Your task to perform on an android device: View the shopping cart on target.com. Search for logitech g910 on target.com, select the first entry, add it to the cart, then select checkout. Image 0: 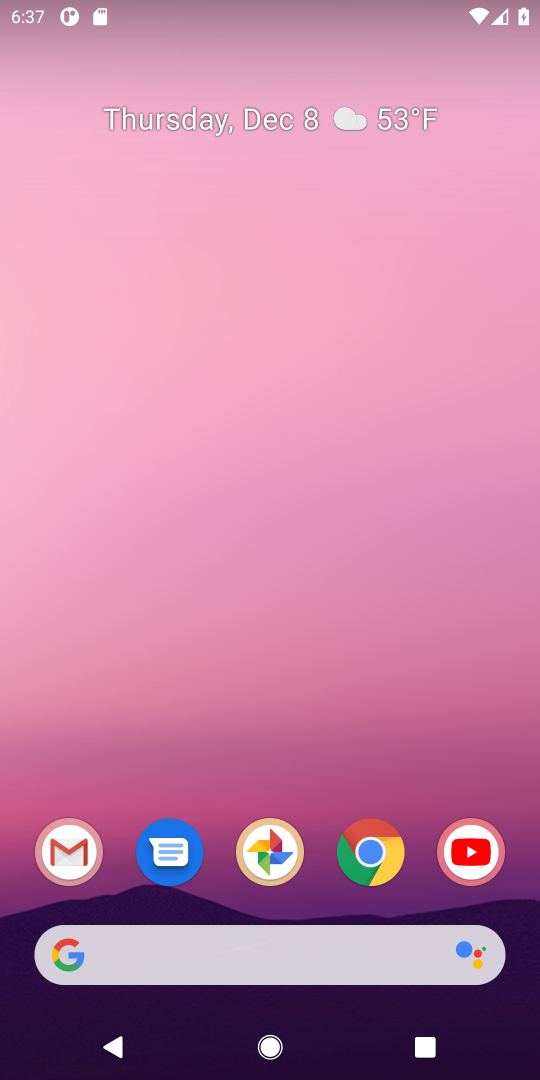
Step 0: click (207, 961)
Your task to perform on an android device: View the shopping cart on target.com. Search for logitech g910 on target.com, select the first entry, add it to the cart, then select checkout. Image 1: 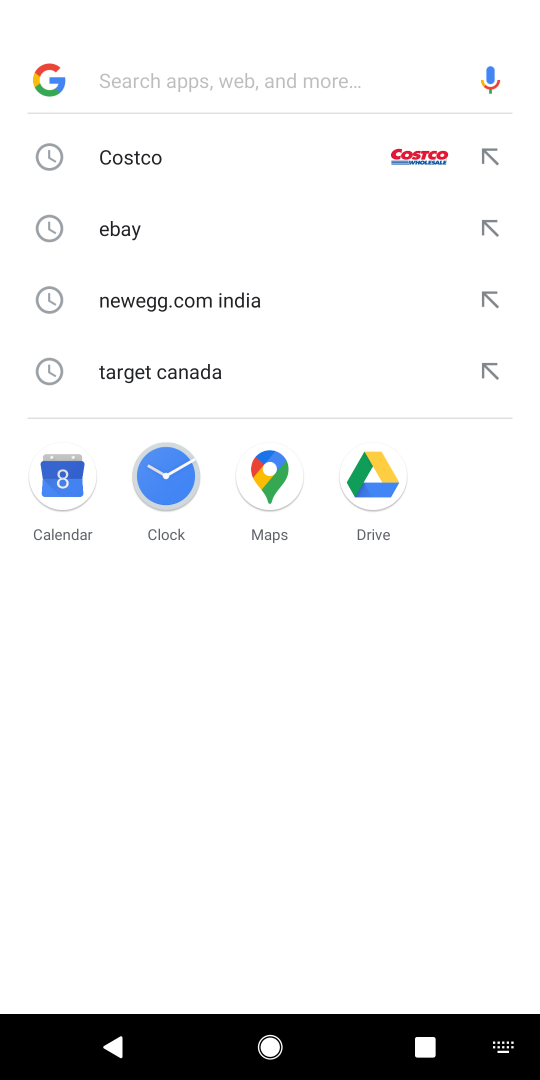
Step 1: type "target"
Your task to perform on an android device: View the shopping cart on target.com. Search for logitech g910 on target.com, select the first entry, add it to the cart, then select checkout. Image 2: 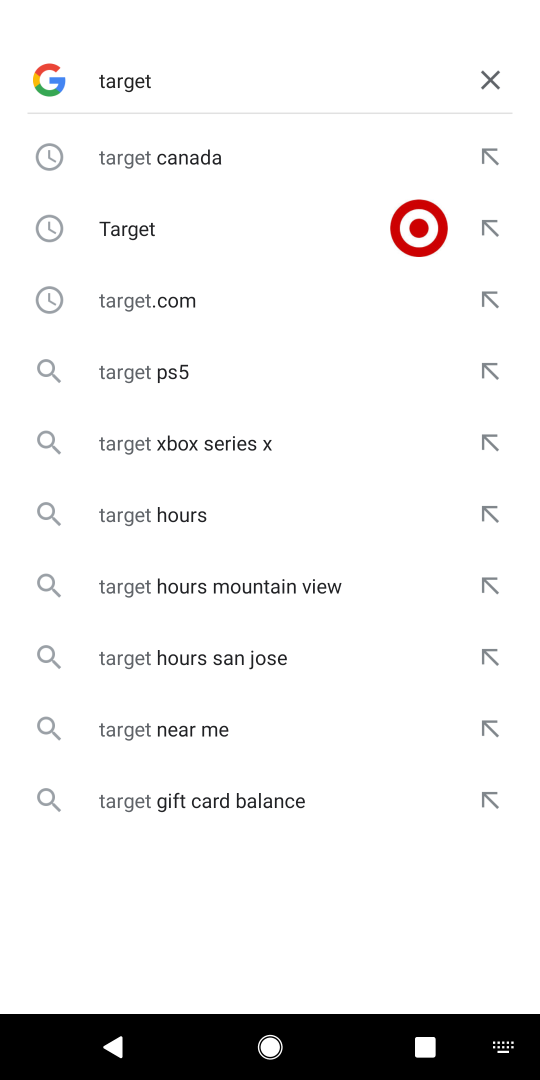
Step 2: click (121, 235)
Your task to perform on an android device: View the shopping cart on target.com. Search for logitech g910 on target.com, select the first entry, add it to the cart, then select checkout. Image 3: 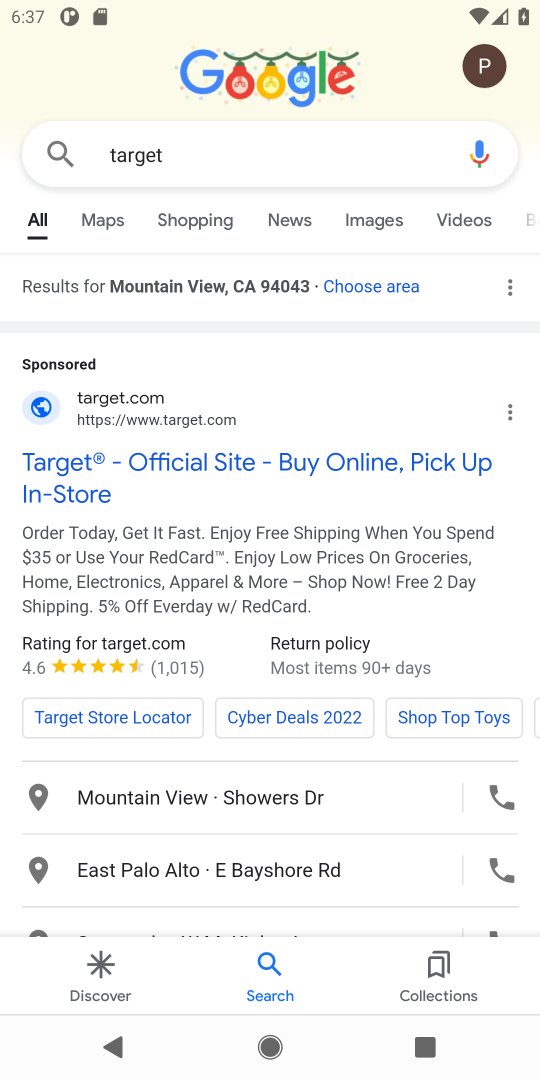
Step 3: click (206, 462)
Your task to perform on an android device: View the shopping cart on target.com. Search for logitech g910 on target.com, select the first entry, add it to the cart, then select checkout. Image 4: 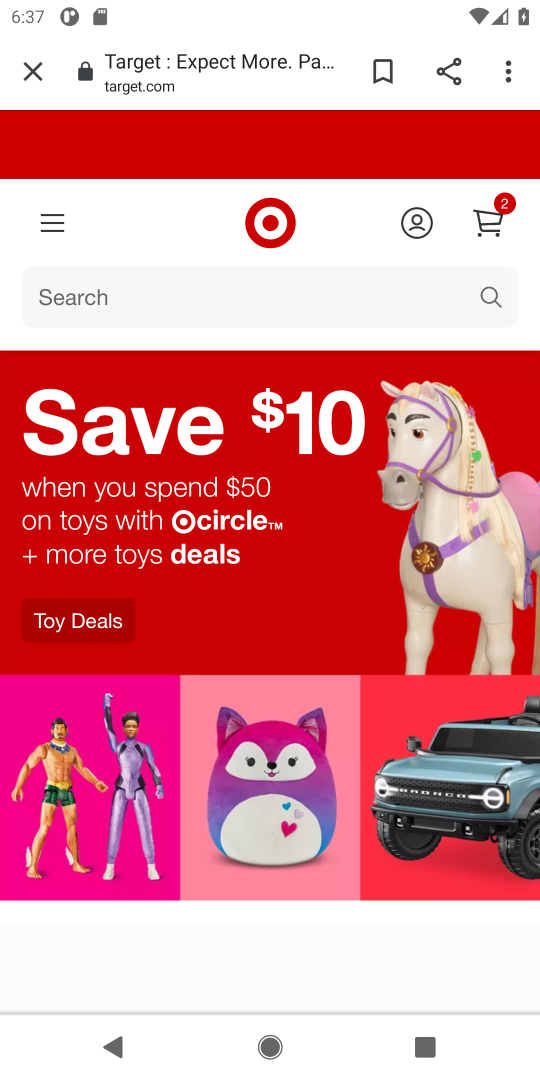
Step 4: click (247, 306)
Your task to perform on an android device: View the shopping cart on target.com. Search for logitech g910 on target.com, select the first entry, add it to the cart, then select checkout. Image 5: 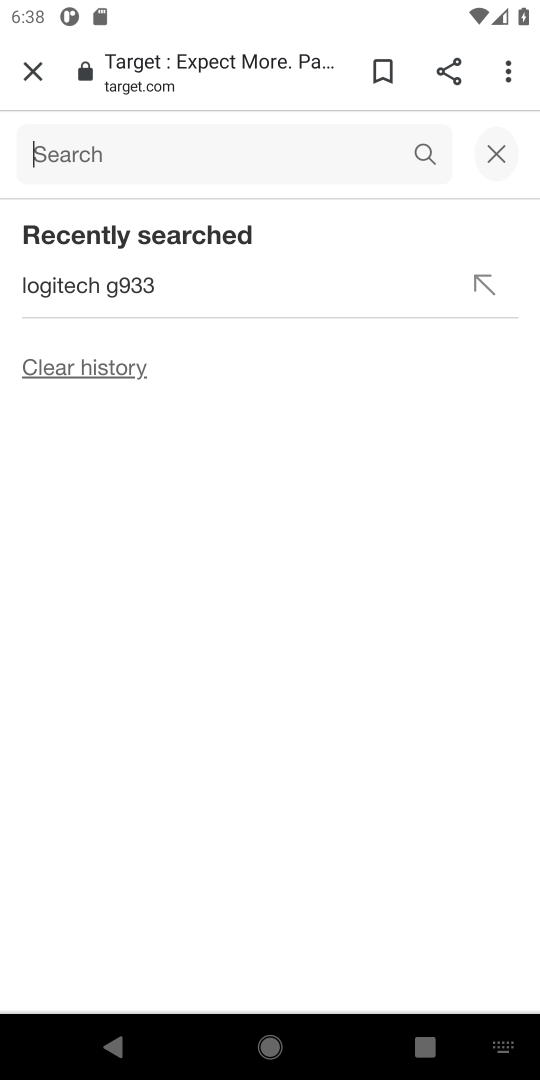
Step 5: type "logitech g910"
Your task to perform on an android device: View the shopping cart on target.com. Search for logitech g910 on target.com, select the first entry, add it to the cart, then select checkout. Image 6: 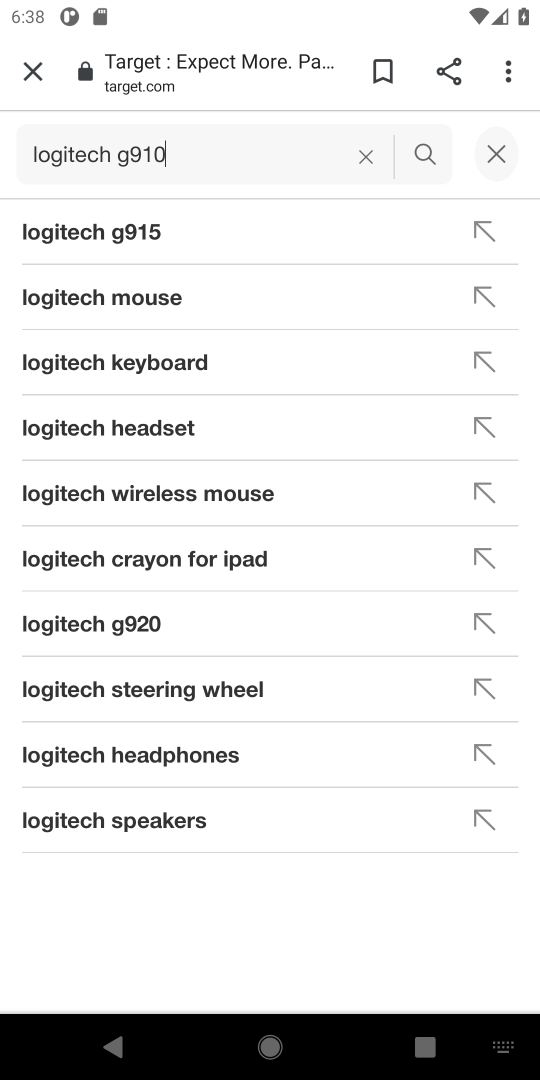
Step 6: click (427, 161)
Your task to perform on an android device: View the shopping cart on target.com. Search for logitech g910 on target.com, select the first entry, add it to the cart, then select checkout. Image 7: 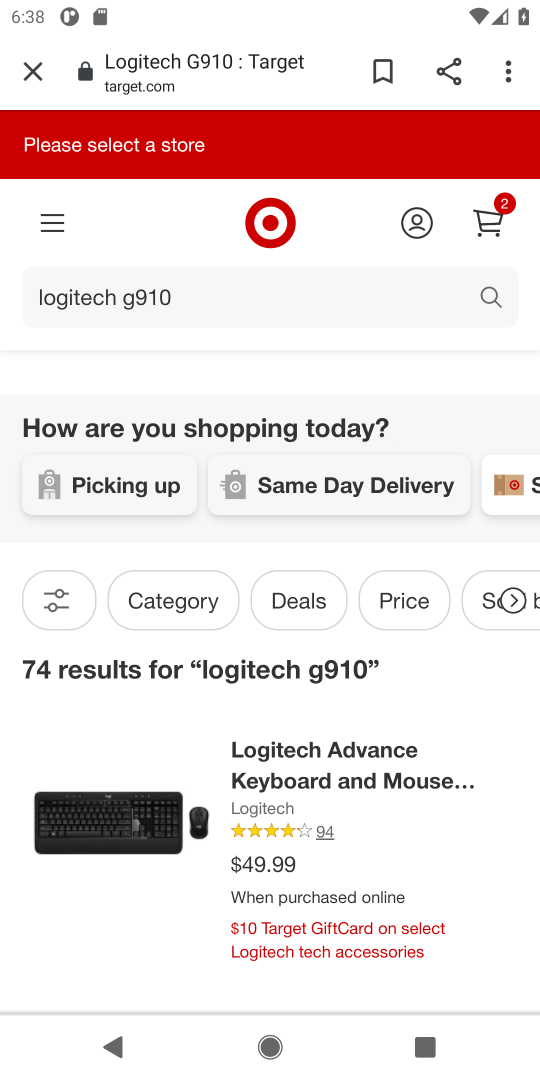
Step 7: click (372, 761)
Your task to perform on an android device: View the shopping cart on target.com. Search for logitech g910 on target.com, select the first entry, add it to the cart, then select checkout. Image 8: 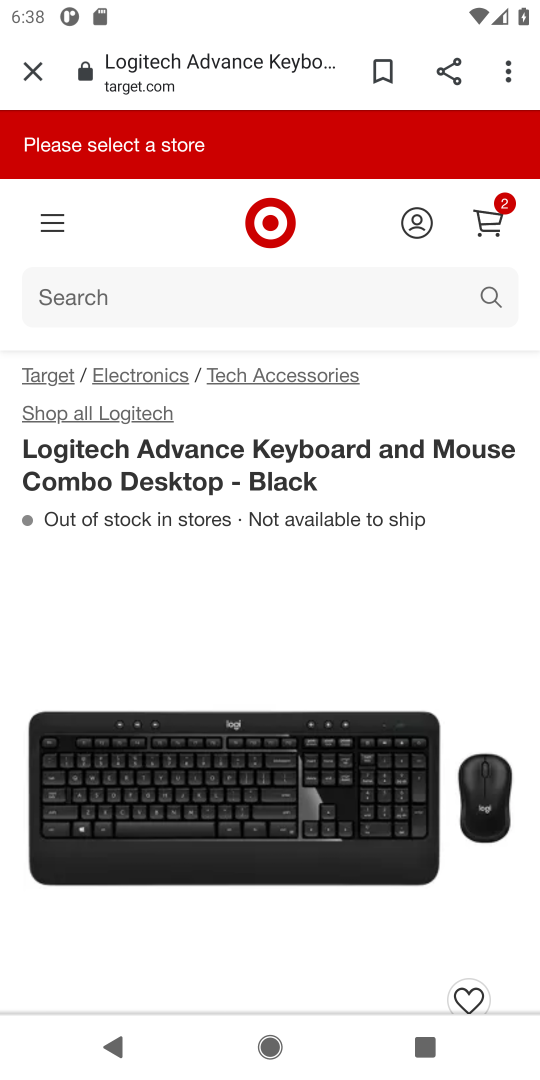
Step 8: drag from (372, 761) to (362, 261)
Your task to perform on an android device: View the shopping cart on target.com. Search for logitech g910 on target.com, select the first entry, add it to the cart, then select checkout. Image 9: 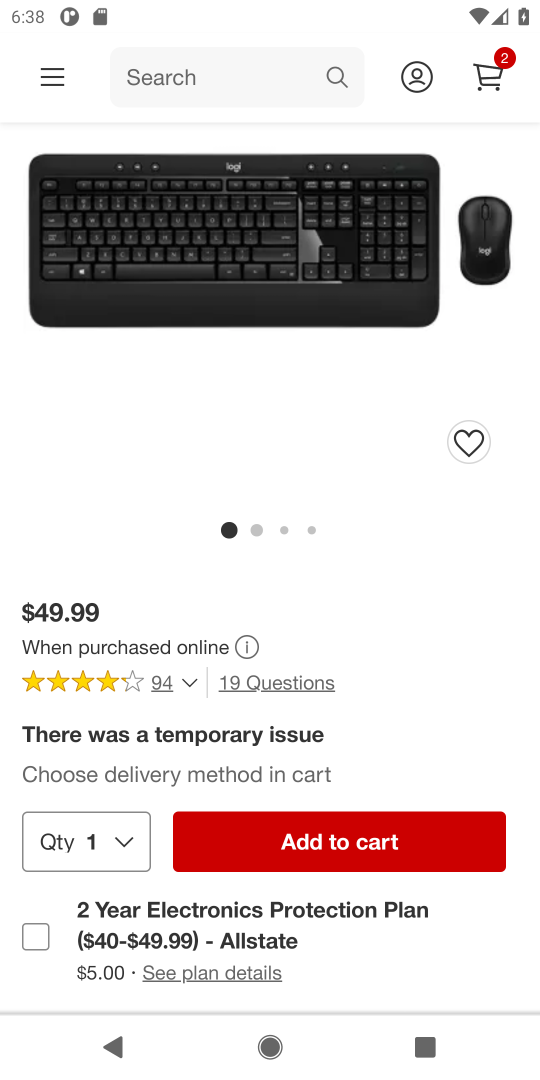
Step 9: click (426, 839)
Your task to perform on an android device: View the shopping cart on target.com. Search for logitech g910 on target.com, select the first entry, add it to the cart, then select checkout. Image 10: 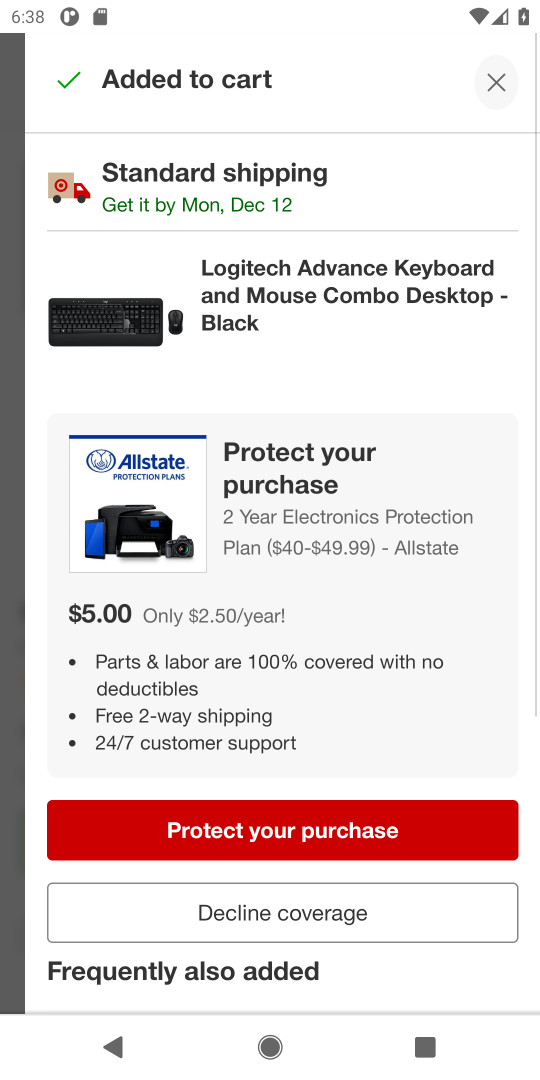
Step 10: task complete